Your task to perform on an android device: change keyboard looks Image 0: 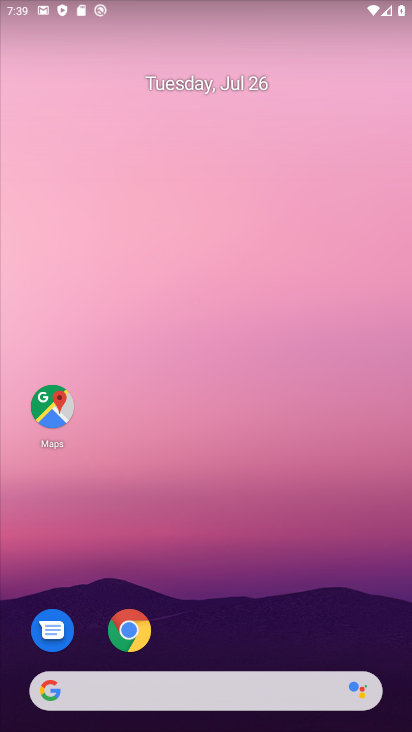
Step 0: drag from (253, 650) to (215, 147)
Your task to perform on an android device: change keyboard looks Image 1: 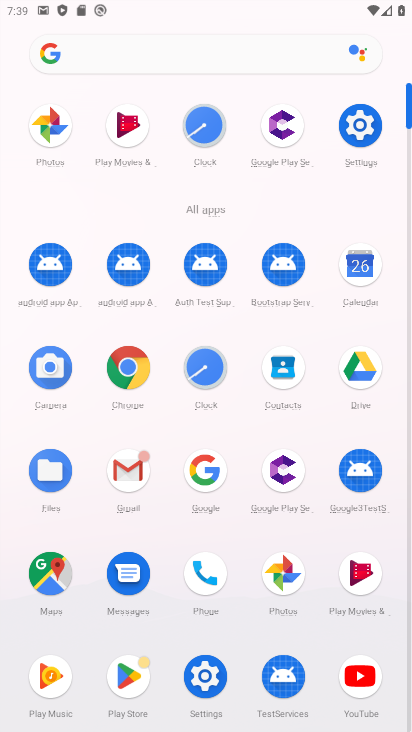
Step 1: click (195, 675)
Your task to perform on an android device: change keyboard looks Image 2: 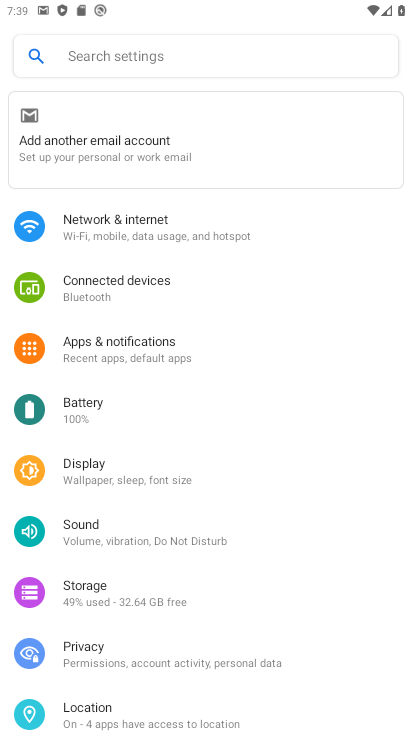
Step 2: drag from (195, 675) to (235, 243)
Your task to perform on an android device: change keyboard looks Image 3: 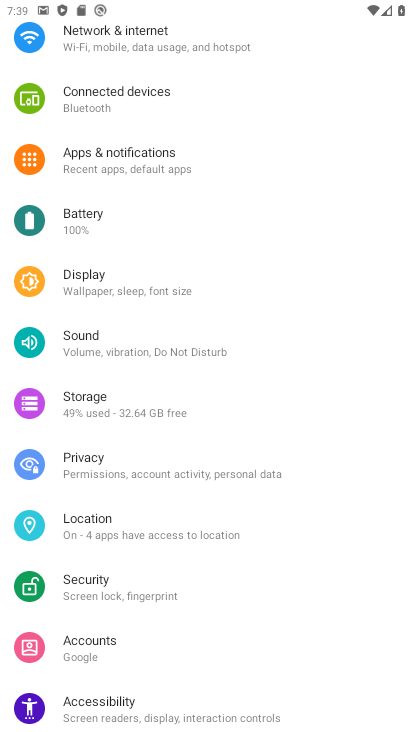
Step 3: drag from (223, 652) to (260, 279)
Your task to perform on an android device: change keyboard looks Image 4: 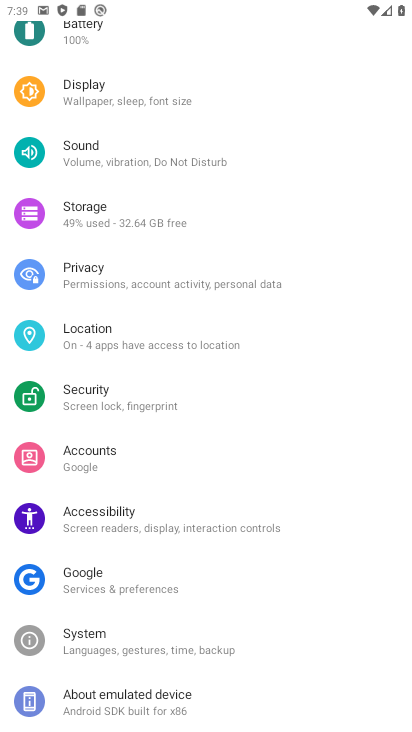
Step 4: drag from (151, 634) to (169, 262)
Your task to perform on an android device: change keyboard looks Image 5: 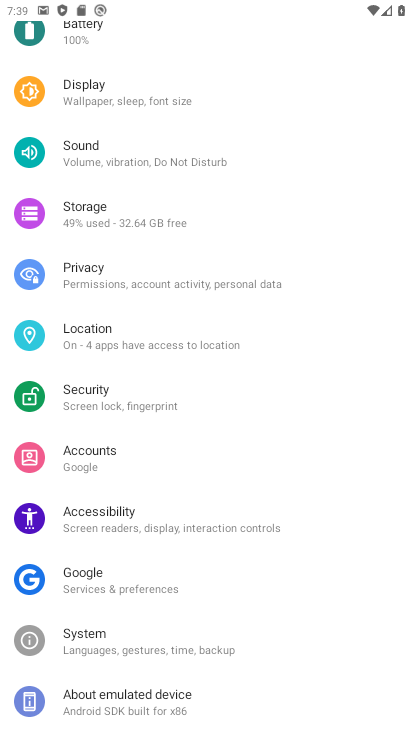
Step 5: click (162, 650)
Your task to perform on an android device: change keyboard looks Image 6: 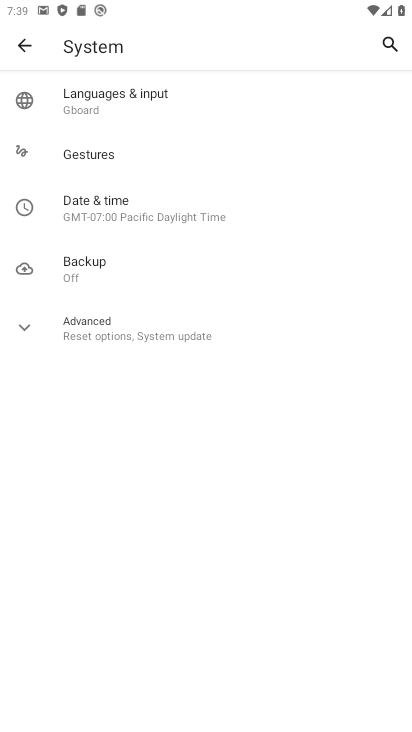
Step 6: click (109, 118)
Your task to perform on an android device: change keyboard looks Image 7: 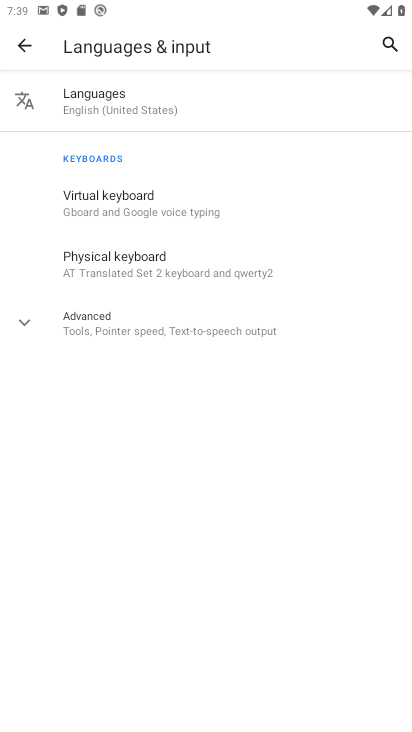
Step 7: click (175, 212)
Your task to perform on an android device: change keyboard looks Image 8: 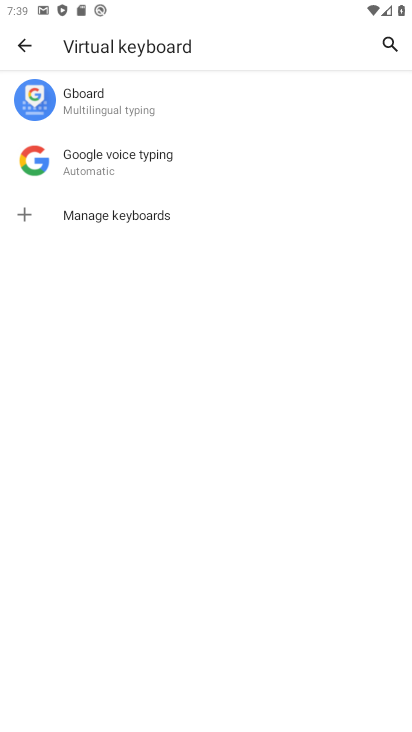
Step 8: click (98, 101)
Your task to perform on an android device: change keyboard looks Image 9: 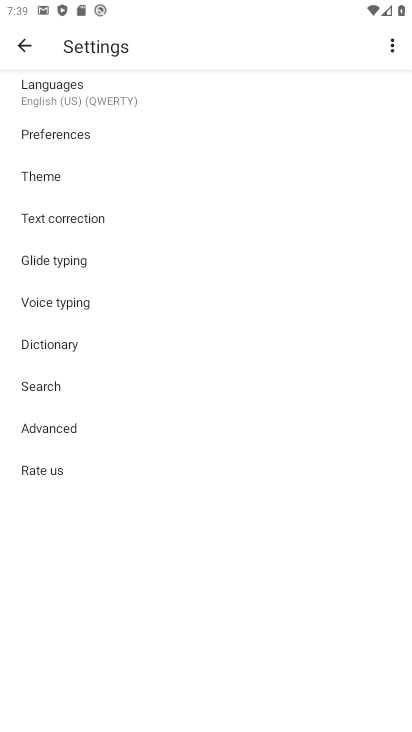
Step 9: click (68, 185)
Your task to perform on an android device: change keyboard looks Image 10: 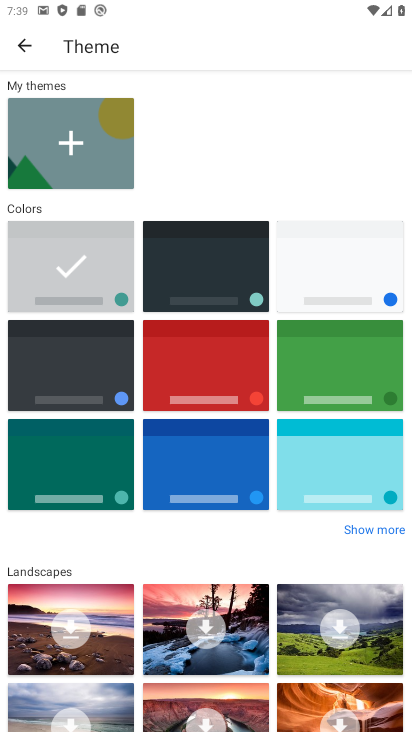
Step 10: click (204, 269)
Your task to perform on an android device: change keyboard looks Image 11: 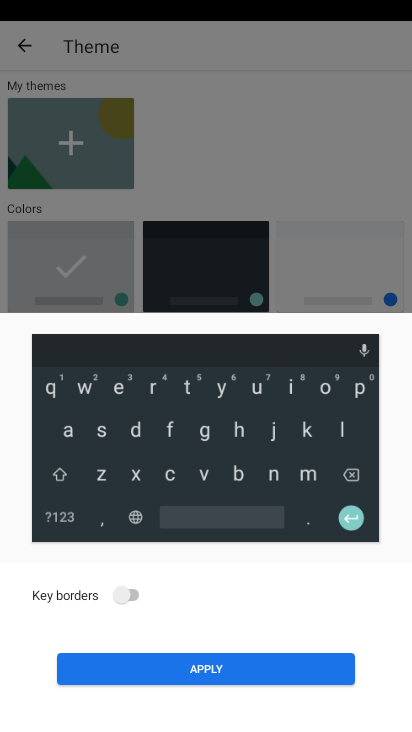
Step 11: click (224, 666)
Your task to perform on an android device: change keyboard looks Image 12: 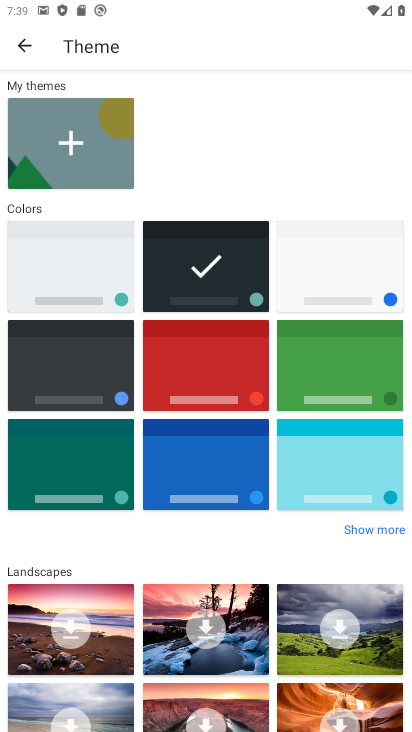
Step 12: task complete